Your task to perform on an android device: Go to display settings Image 0: 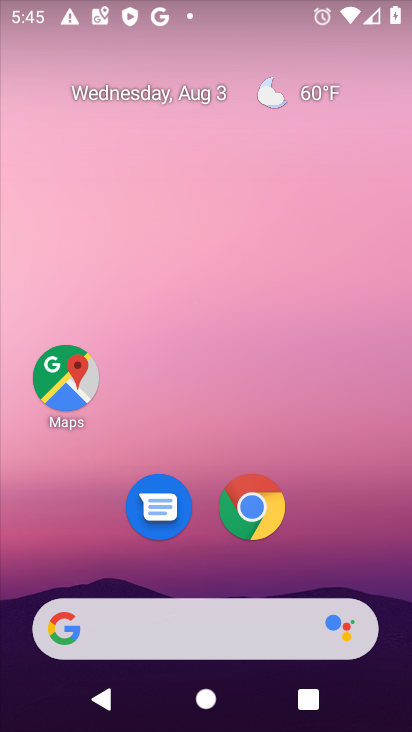
Step 0: drag from (348, 400) to (325, 30)
Your task to perform on an android device: Go to display settings Image 1: 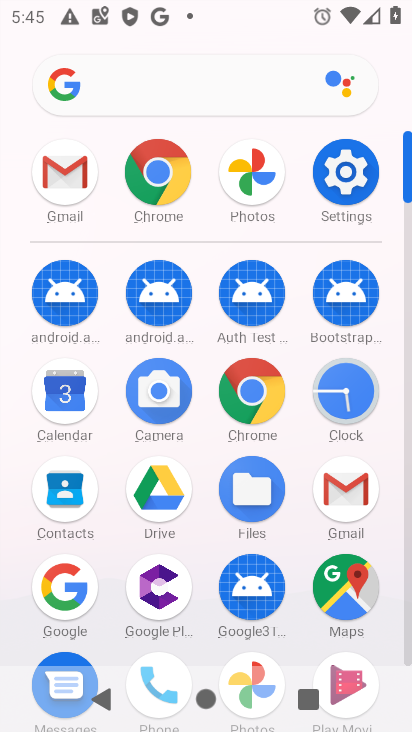
Step 1: click (355, 169)
Your task to perform on an android device: Go to display settings Image 2: 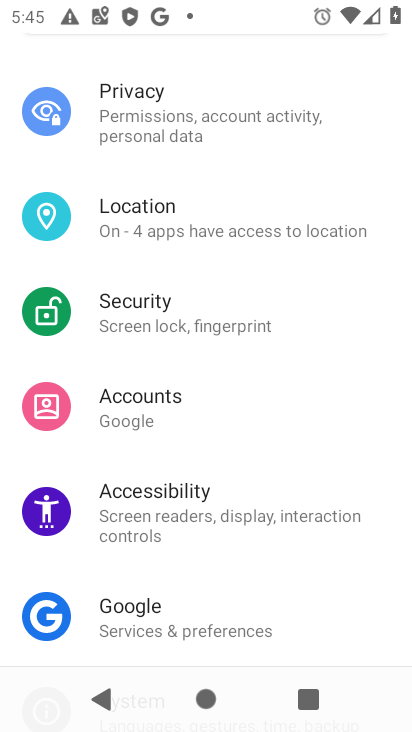
Step 2: drag from (268, 144) to (280, 544)
Your task to perform on an android device: Go to display settings Image 3: 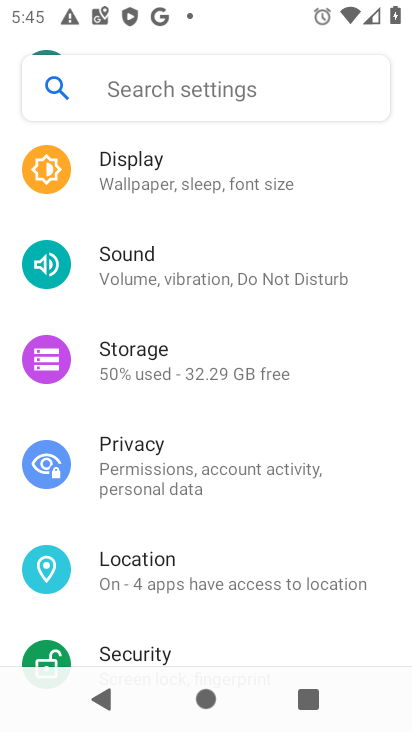
Step 3: click (195, 175)
Your task to perform on an android device: Go to display settings Image 4: 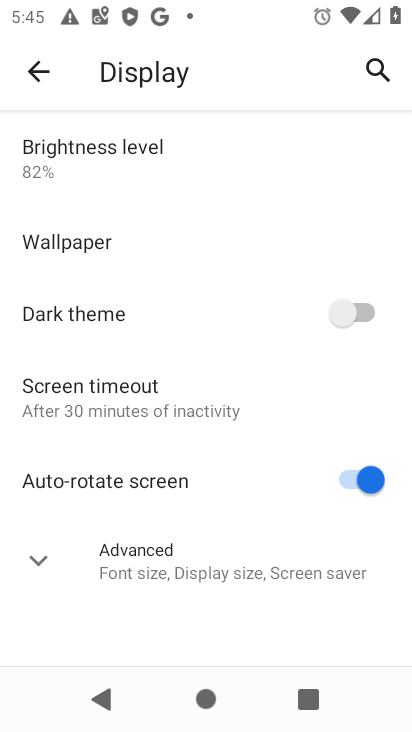
Step 4: task complete